Your task to perform on an android device: change the upload size in google photos Image 0: 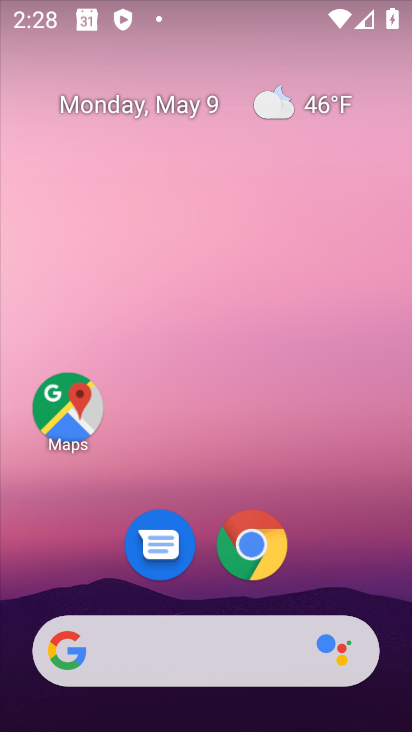
Step 0: drag from (211, 606) to (240, 213)
Your task to perform on an android device: change the upload size in google photos Image 1: 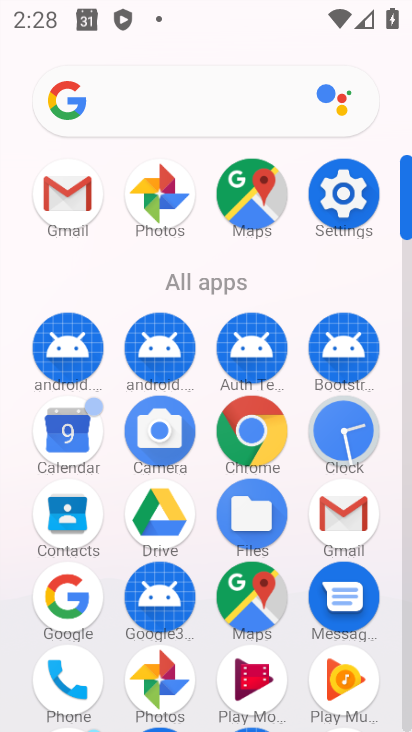
Step 1: click (184, 211)
Your task to perform on an android device: change the upload size in google photos Image 2: 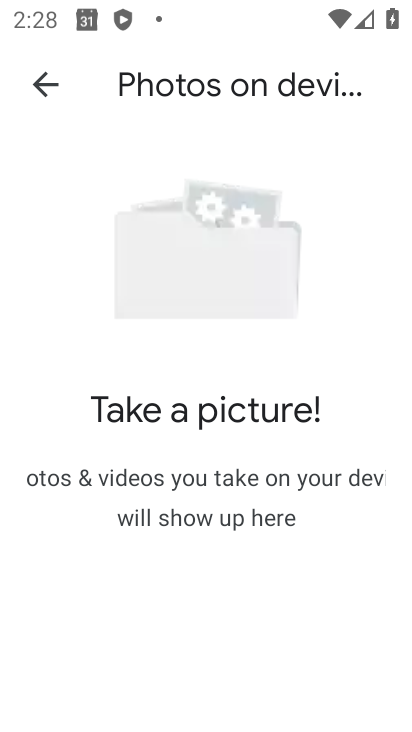
Step 2: click (32, 96)
Your task to perform on an android device: change the upload size in google photos Image 3: 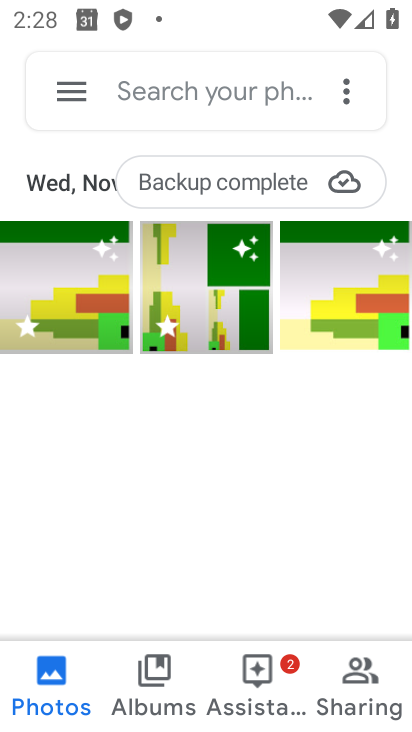
Step 3: click (76, 79)
Your task to perform on an android device: change the upload size in google photos Image 4: 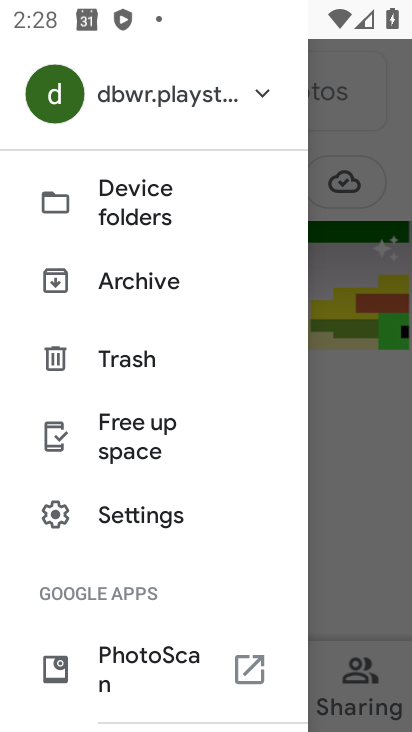
Step 4: drag from (140, 579) to (167, 361)
Your task to perform on an android device: change the upload size in google photos Image 5: 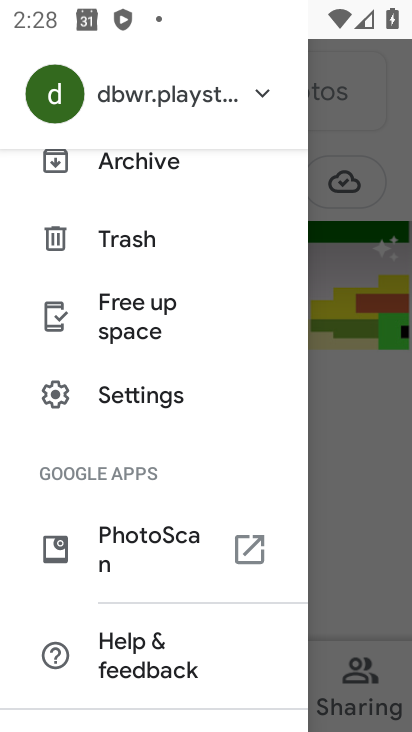
Step 5: click (138, 384)
Your task to perform on an android device: change the upload size in google photos Image 6: 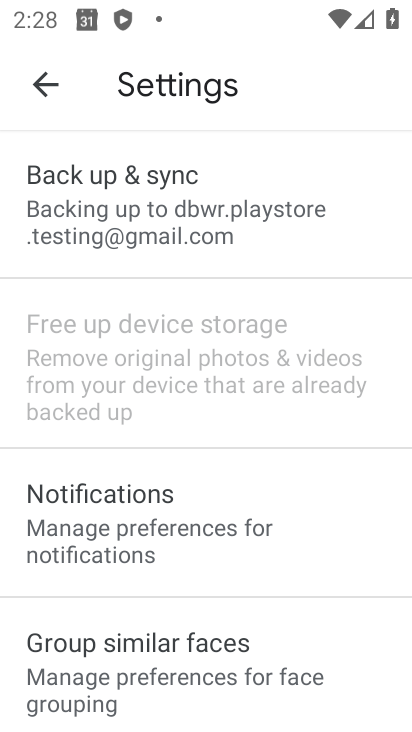
Step 6: click (168, 591)
Your task to perform on an android device: change the upload size in google photos Image 7: 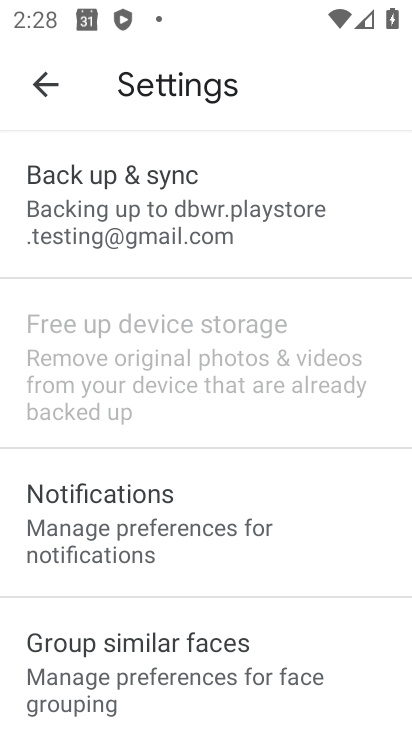
Step 7: click (149, 222)
Your task to perform on an android device: change the upload size in google photos Image 8: 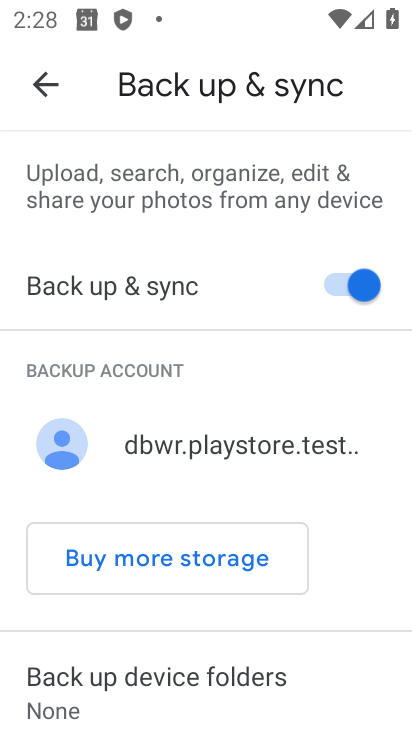
Step 8: drag from (186, 609) to (228, 369)
Your task to perform on an android device: change the upload size in google photos Image 9: 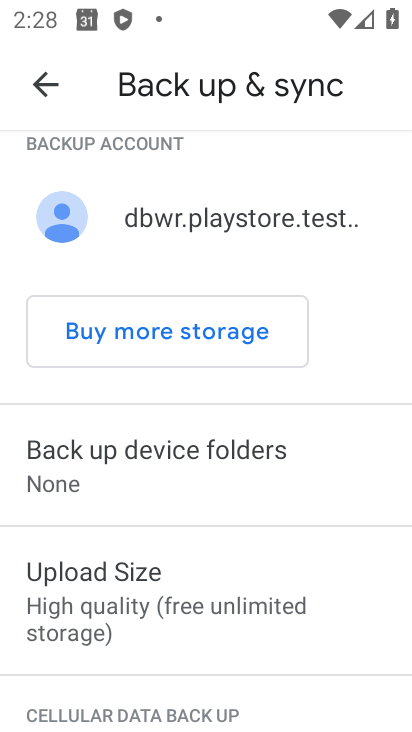
Step 9: drag from (206, 622) to (228, 409)
Your task to perform on an android device: change the upload size in google photos Image 10: 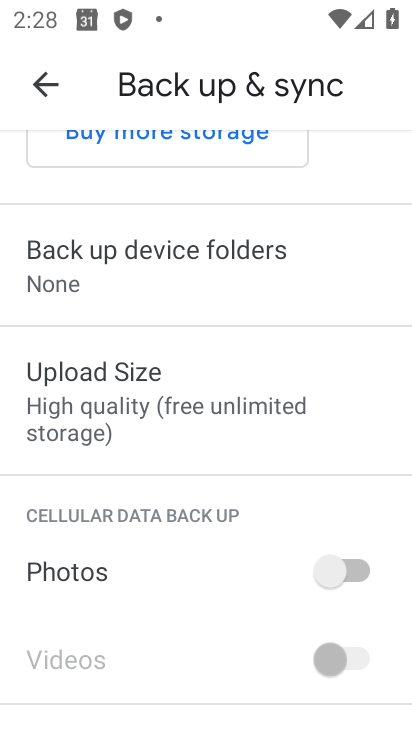
Step 10: drag from (186, 612) to (177, 392)
Your task to perform on an android device: change the upload size in google photos Image 11: 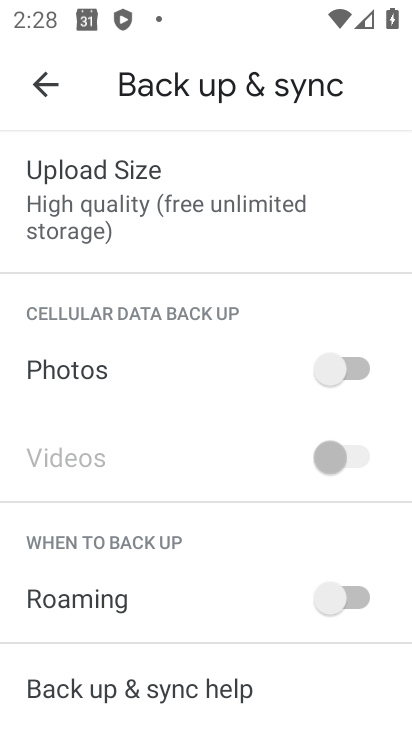
Step 11: click (130, 235)
Your task to perform on an android device: change the upload size in google photos Image 12: 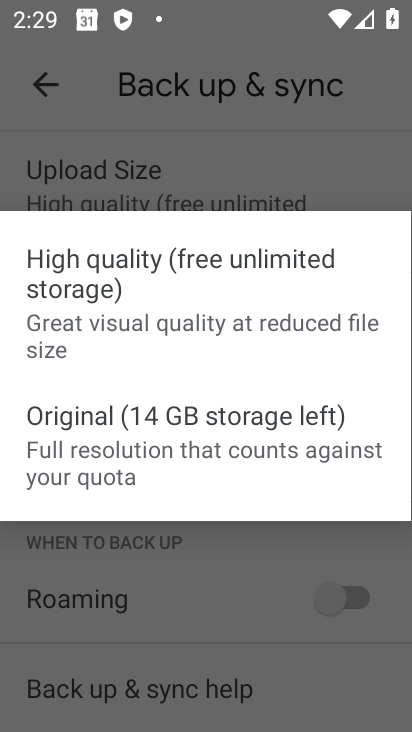
Step 12: click (169, 443)
Your task to perform on an android device: change the upload size in google photos Image 13: 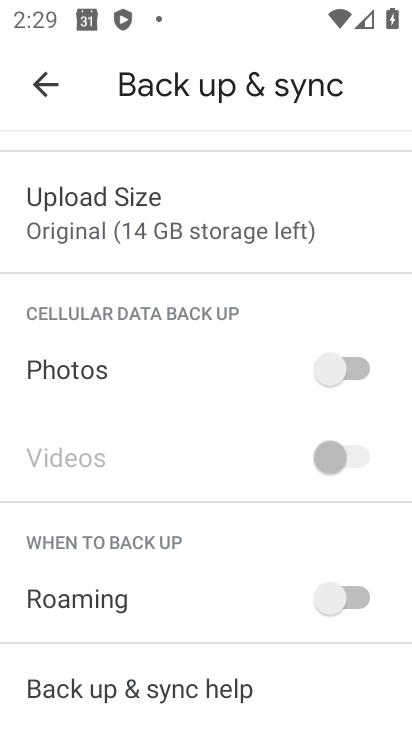
Step 13: task complete